Your task to perform on an android device: Open calendar and show me the fourth week of next month Image 0: 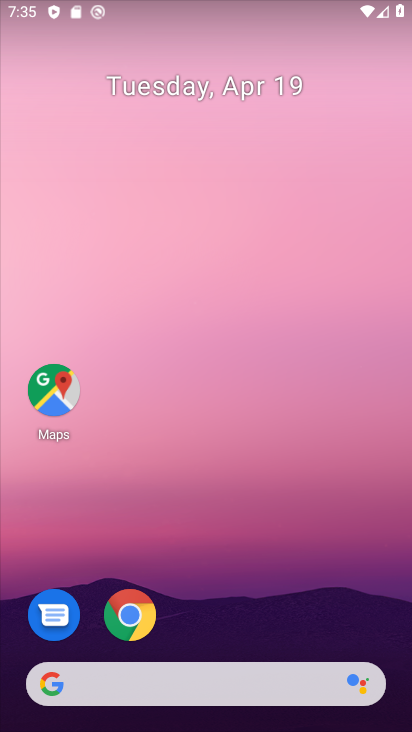
Step 0: click (193, 90)
Your task to perform on an android device: Open calendar and show me the fourth week of next month Image 1: 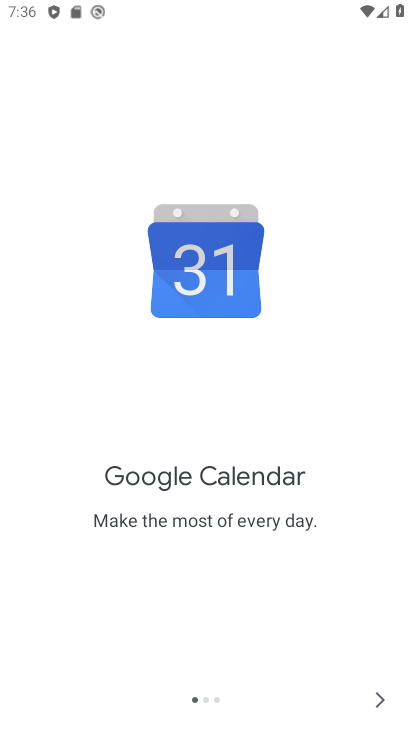
Step 1: click (378, 693)
Your task to perform on an android device: Open calendar and show me the fourth week of next month Image 2: 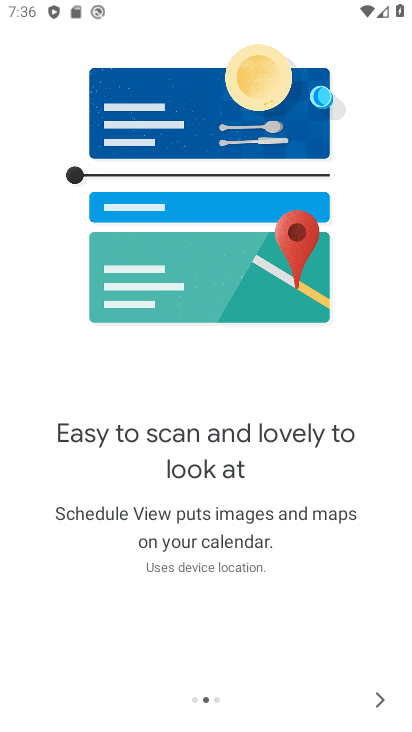
Step 2: click (378, 693)
Your task to perform on an android device: Open calendar and show me the fourth week of next month Image 3: 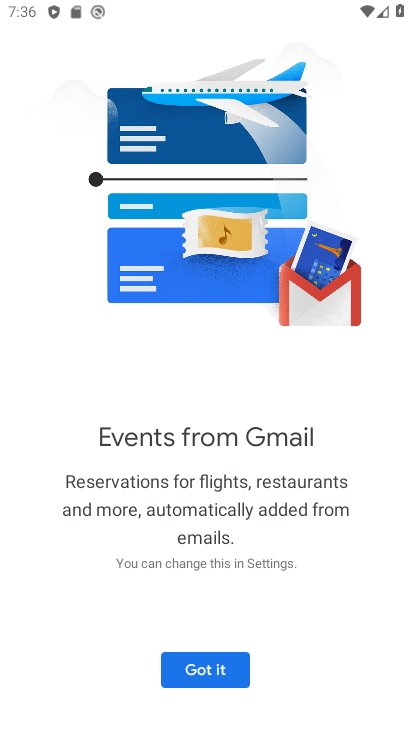
Step 3: click (206, 667)
Your task to perform on an android device: Open calendar and show me the fourth week of next month Image 4: 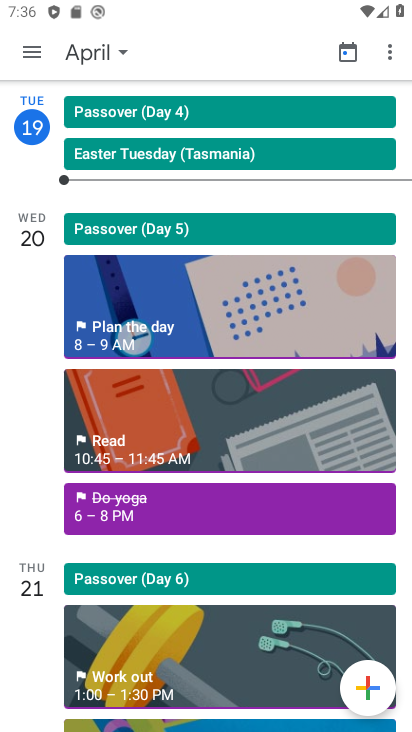
Step 4: click (103, 48)
Your task to perform on an android device: Open calendar and show me the fourth week of next month Image 5: 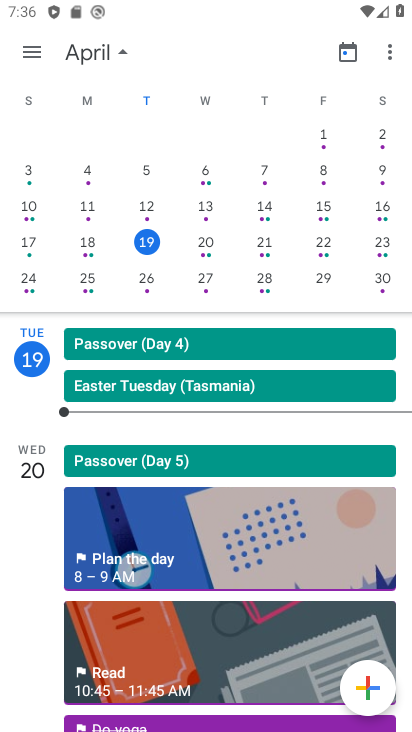
Step 5: drag from (390, 189) to (89, 159)
Your task to perform on an android device: Open calendar and show me the fourth week of next month Image 6: 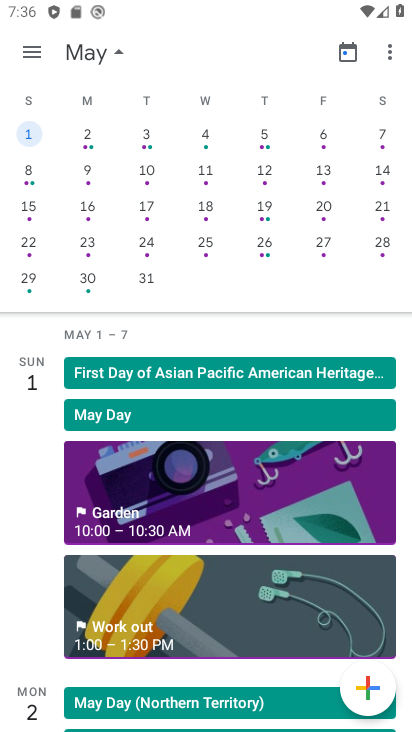
Step 6: click (202, 245)
Your task to perform on an android device: Open calendar and show me the fourth week of next month Image 7: 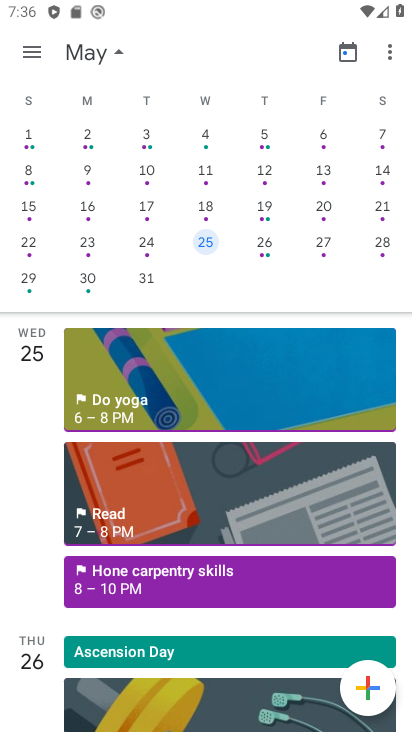
Step 7: task complete